Your task to perform on an android device: Go to Google maps Image 0: 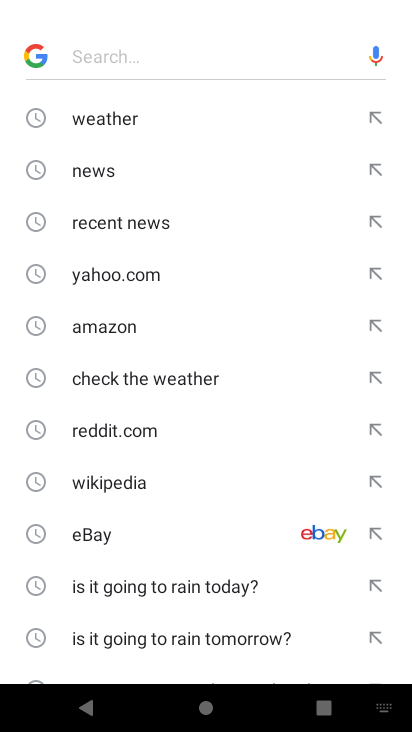
Step 0: press home button
Your task to perform on an android device: Go to Google maps Image 1: 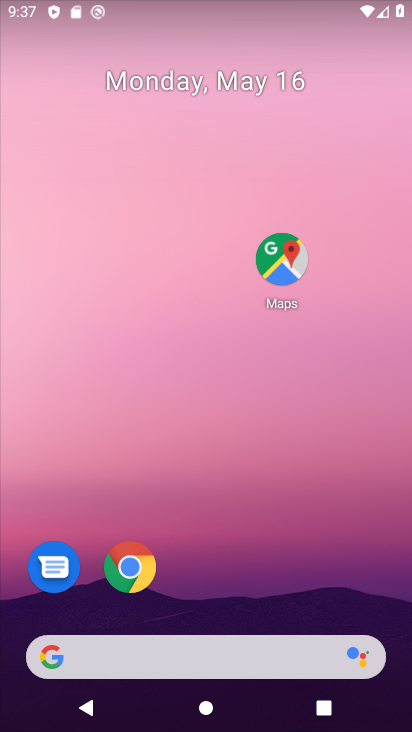
Step 1: click (282, 260)
Your task to perform on an android device: Go to Google maps Image 2: 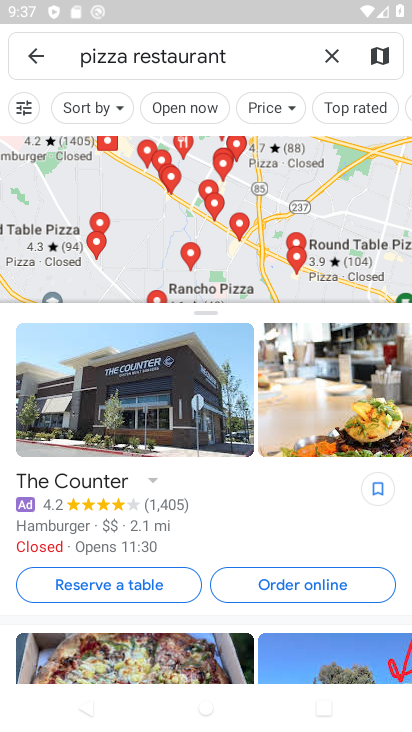
Step 2: task complete